Your task to perform on an android device: turn off smart reply in the gmail app Image 0: 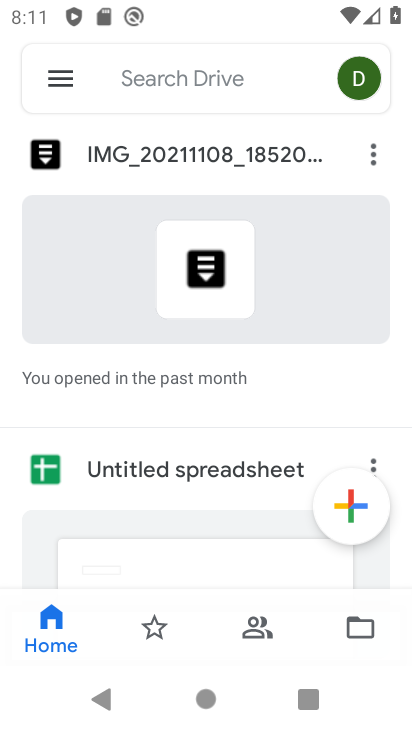
Step 0: press home button
Your task to perform on an android device: turn off smart reply in the gmail app Image 1: 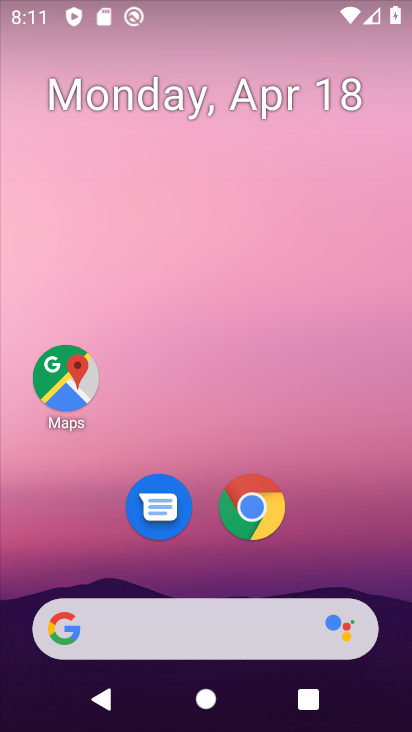
Step 1: drag from (274, 434) to (263, 51)
Your task to perform on an android device: turn off smart reply in the gmail app Image 2: 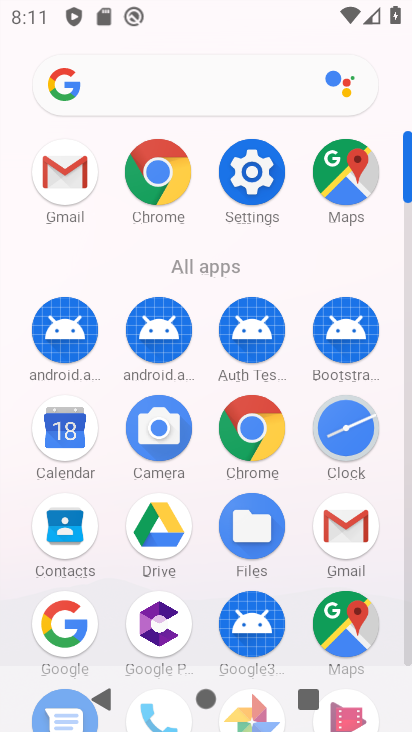
Step 2: click (76, 169)
Your task to perform on an android device: turn off smart reply in the gmail app Image 3: 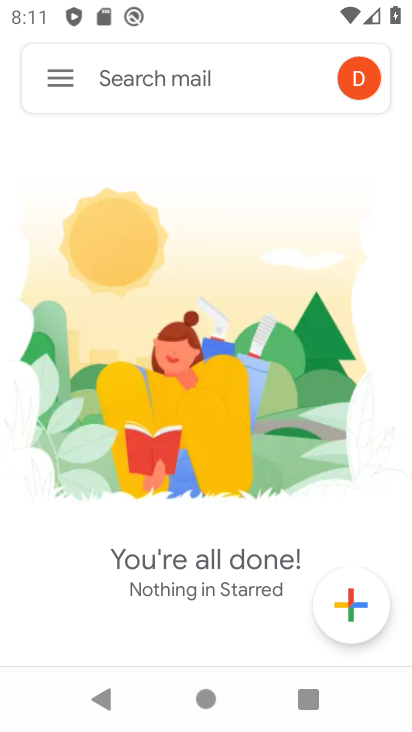
Step 3: click (65, 84)
Your task to perform on an android device: turn off smart reply in the gmail app Image 4: 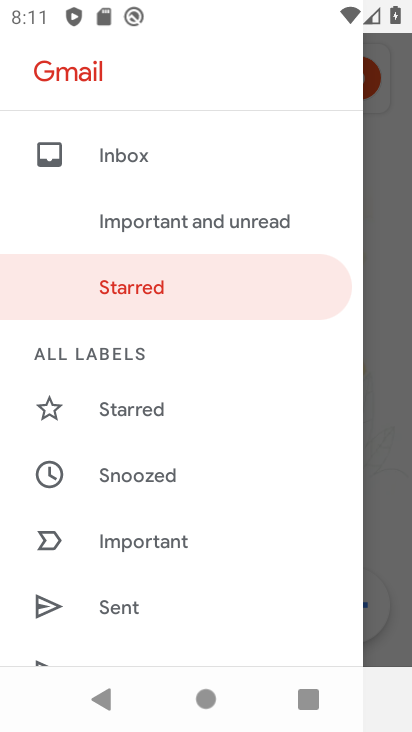
Step 4: drag from (263, 450) to (251, 76)
Your task to perform on an android device: turn off smart reply in the gmail app Image 5: 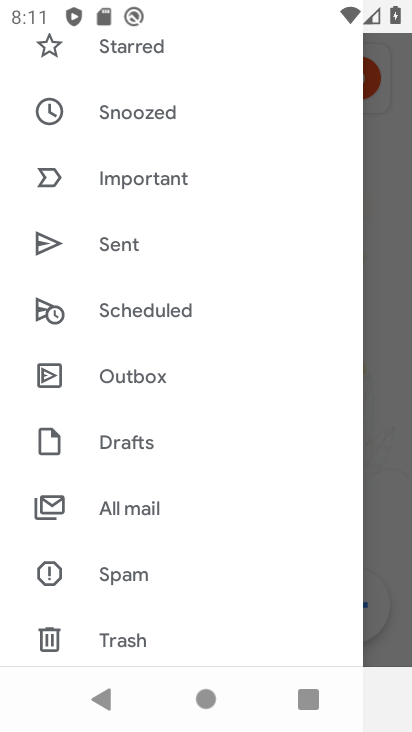
Step 5: drag from (206, 596) to (240, 196)
Your task to perform on an android device: turn off smart reply in the gmail app Image 6: 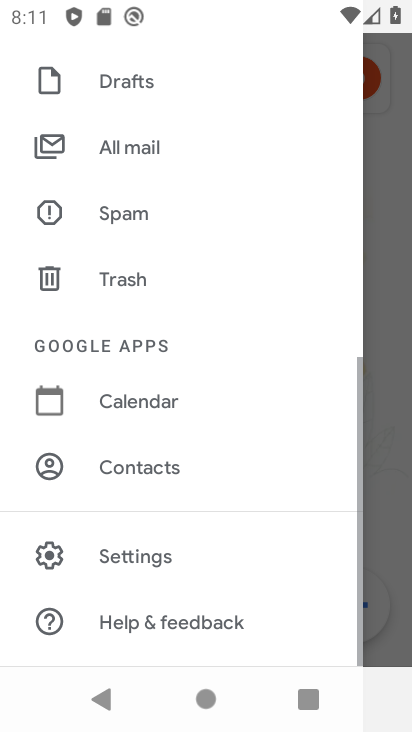
Step 6: click (124, 549)
Your task to perform on an android device: turn off smart reply in the gmail app Image 7: 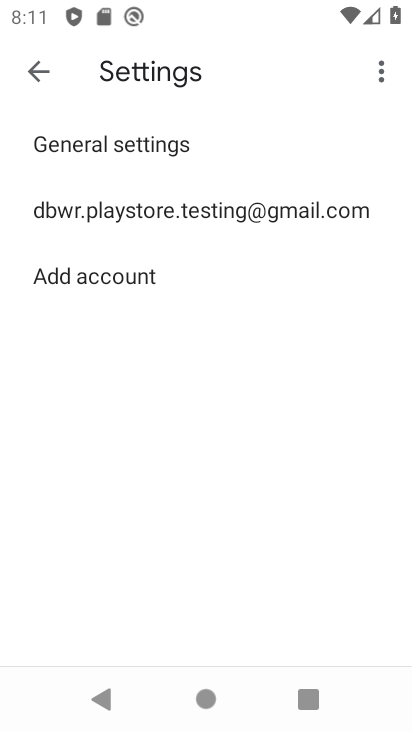
Step 7: click (156, 209)
Your task to perform on an android device: turn off smart reply in the gmail app Image 8: 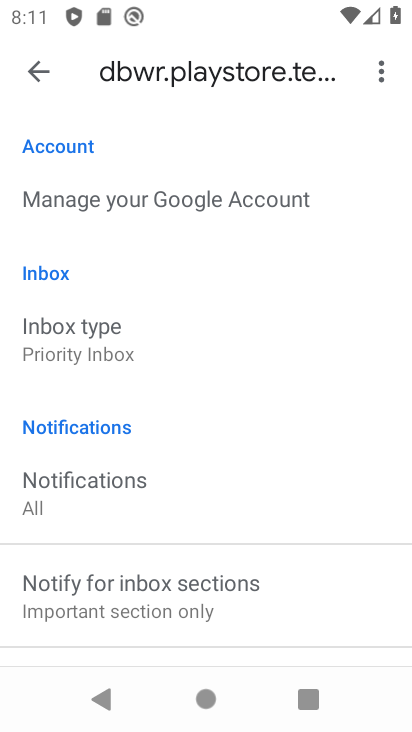
Step 8: drag from (191, 552) to (184, 100)
Your task to perform on an android device: turn off smart reply in the gmail app Image 9: 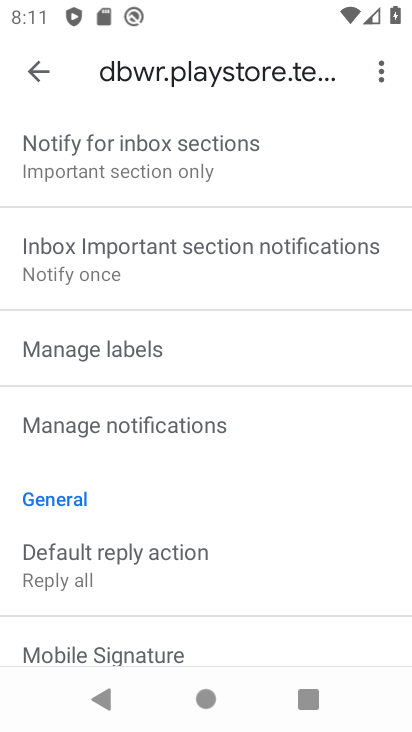
Step 9: drag from (202, 536) to (194, 220)
Your task to perform on an android device: turn off smart reply in the gmail app Image 10: 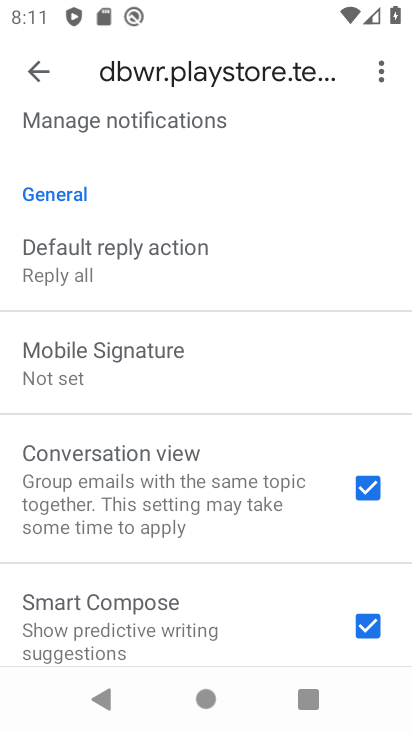
Step 10: drag from (232, 610) to (286, 199)
Your task to perform on an android device: turn off smart reply in the gmail app Image 11: 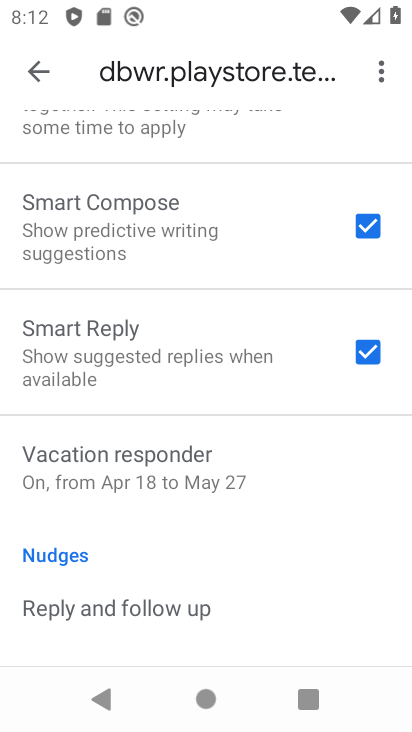
Step 11: click (369, 352)
Your task to perform on an android device: turn off smart reply in the gmail app Image 12: 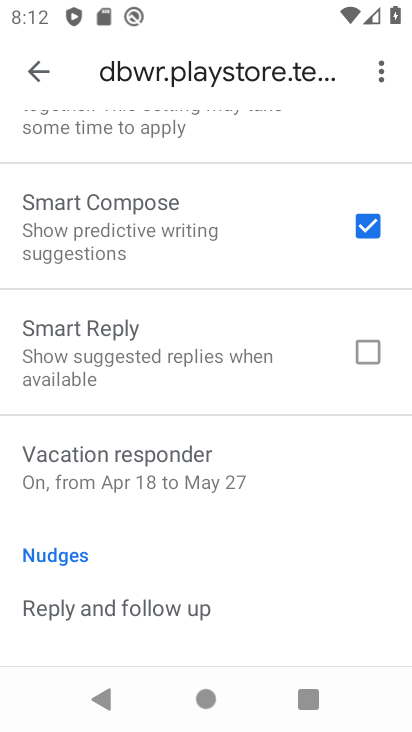
Step 12: task complete